Your task to perform on an android device: Go to notification settings Image 0: 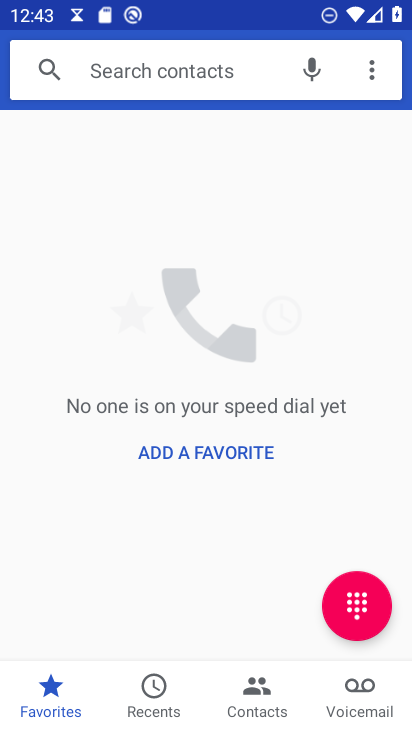
Step 0: press home button
Your task to perform on an android device: Go to notification settings Image 1: 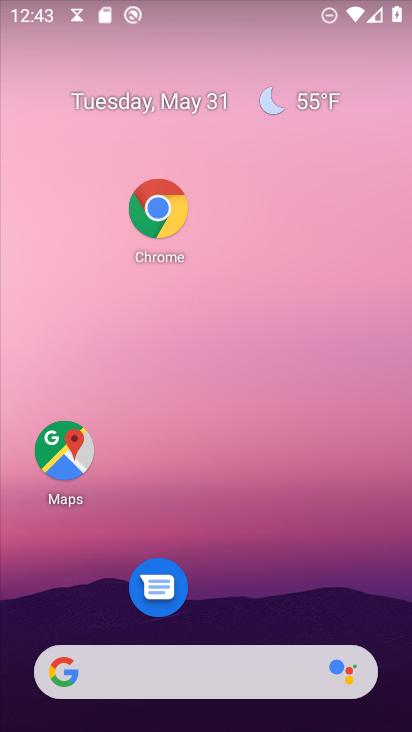
Step 1: drag from (235, 540) to (226, 146)
Your task to perform on an android device: Go to notification settings Image 2: 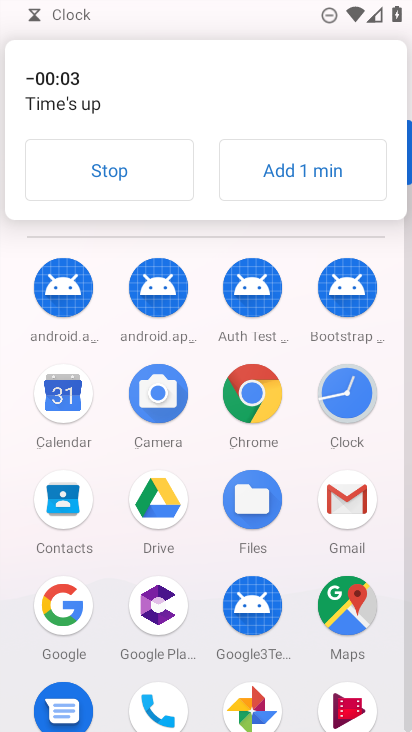
Step 2: click (147, 177)
Your task to perform on an android device: Go to notification settings Image 3: 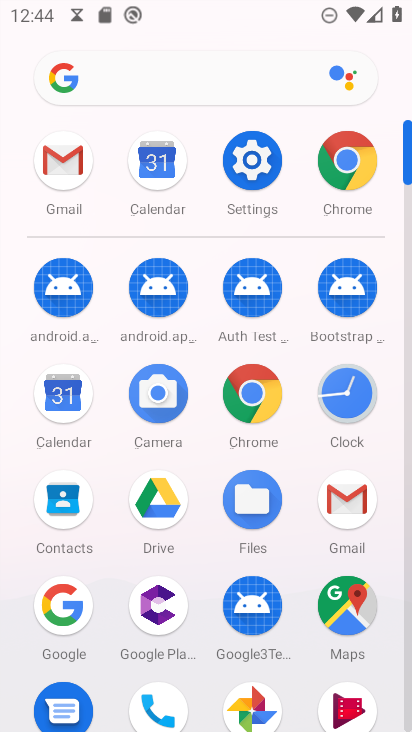
Step 3: click (258, 174)
Your task to perform on an android device: Go to notification settings Image 4: 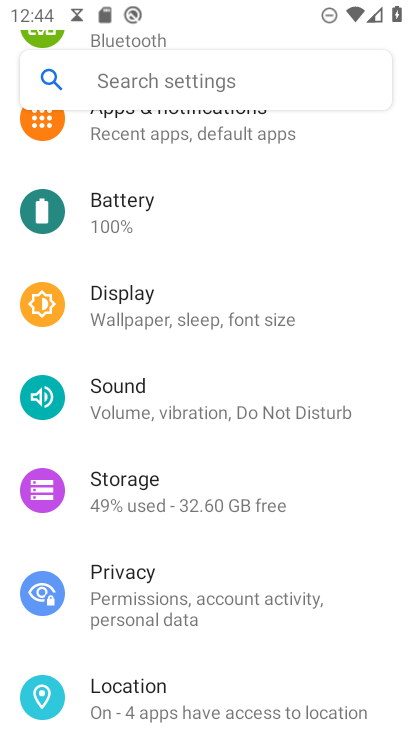
Step 4: click (240, 135)
Your task to perform on an android device: Go to notification settings Image 5: 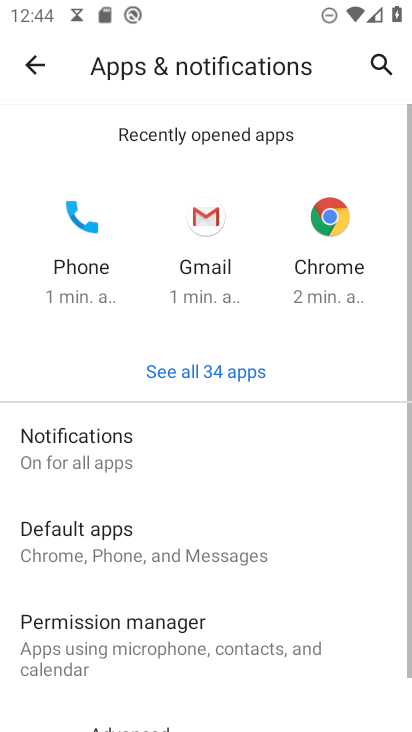
Step 5: click (59, 467)
Your task to perform on an android device: Go to notification settings Image 6: 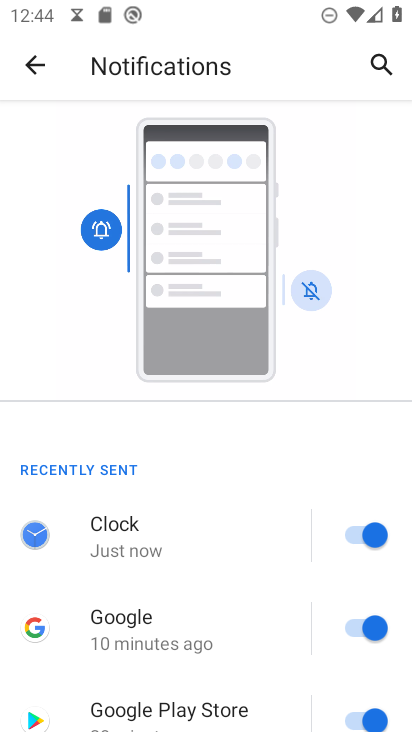
Step 6: task complete